Your task to perform on an android device: Open network settings Image 0: 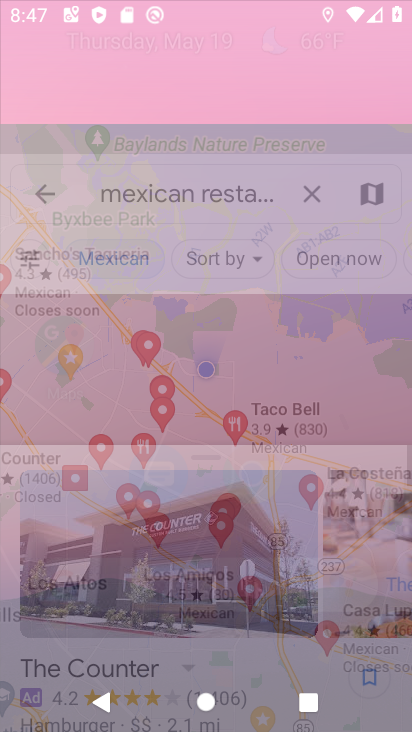
Step 0: click (296, 56)
Your task to perform on an android device: Open network settings Image 1: 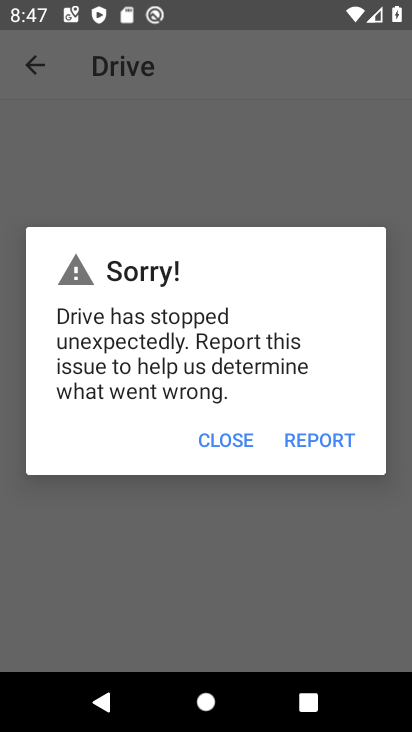
Step 1: press home button
Your task to perform on an android device: Open network settings Image 2: 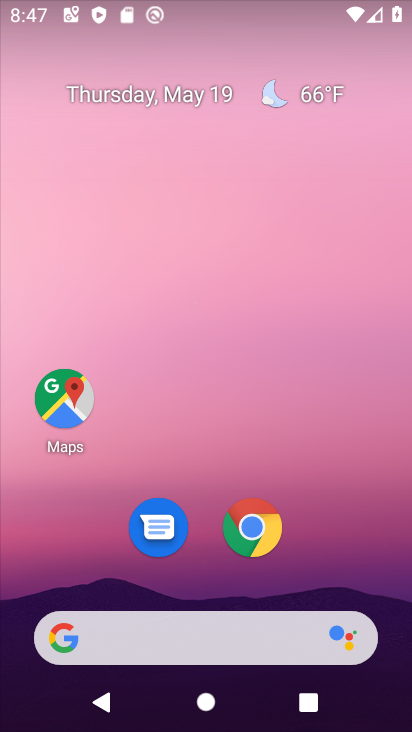
Step 2: drag from (344, 569) to (327, 74)
Your task to perform on an android device: Open network settings Image 3: 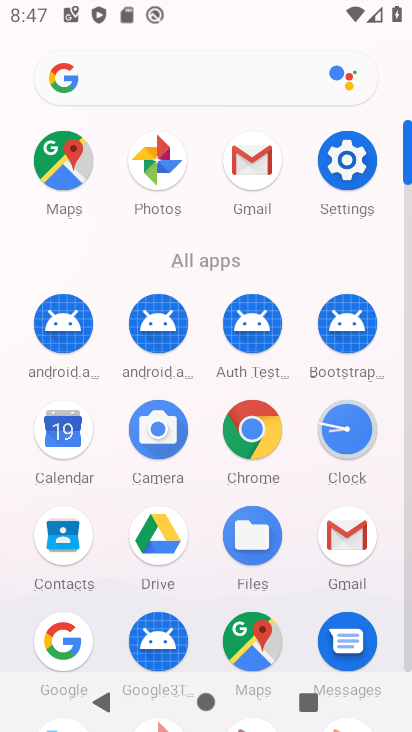
Step 3: click (345, 164)
Your task to perform on an android device: Open network settings Image 4: 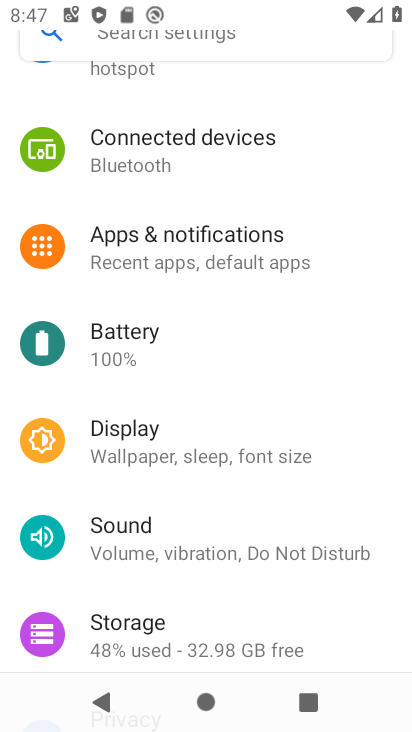
Step 4: drag from (317, 201) to (279, 481)
Your task to perform on an android device: Open network settings Image 5: 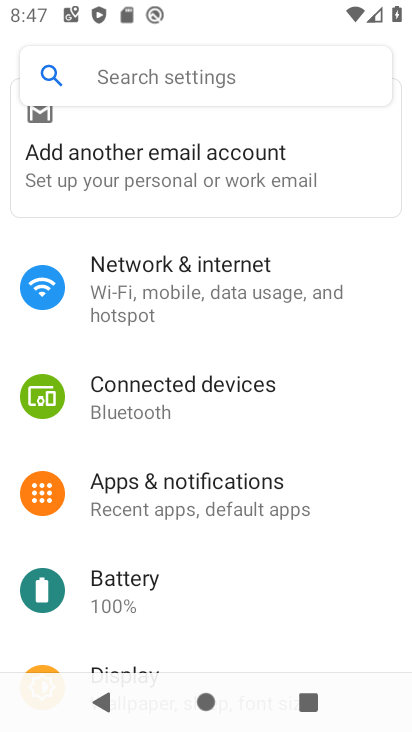
Step 5: click (244, 262)
Your task to perform on an android device: Open network settings Image 6: 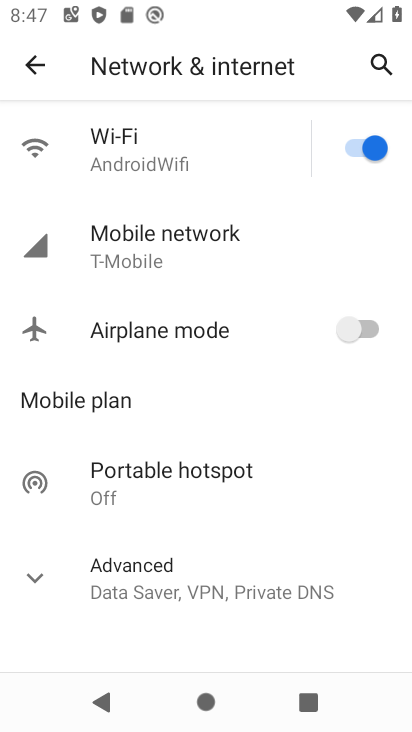
Step 6: click (223, 240)
Your task to perform on an android device: Open network settings Image 7: 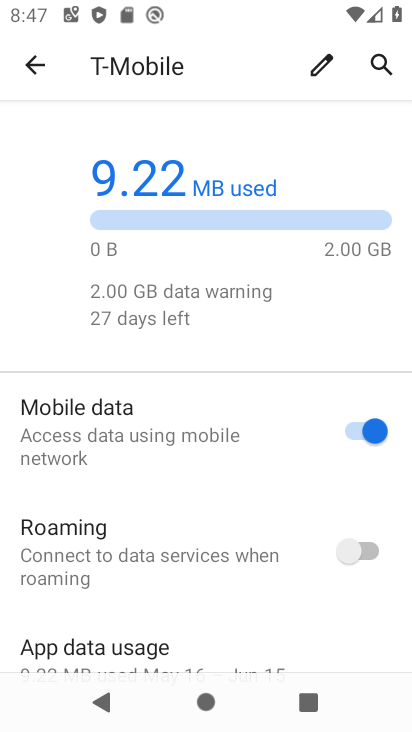
Step 7: task complete